Your task to perform on an android device: Open Android settings Image 0: 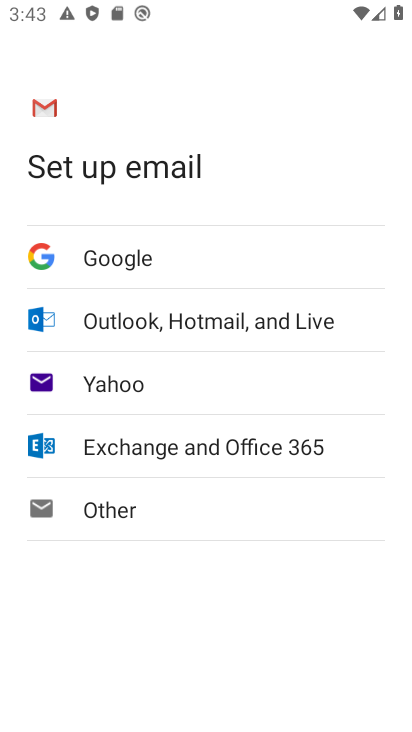
Step 0: press home button
Your task to perform on an android device: Open Android settings Image 1: 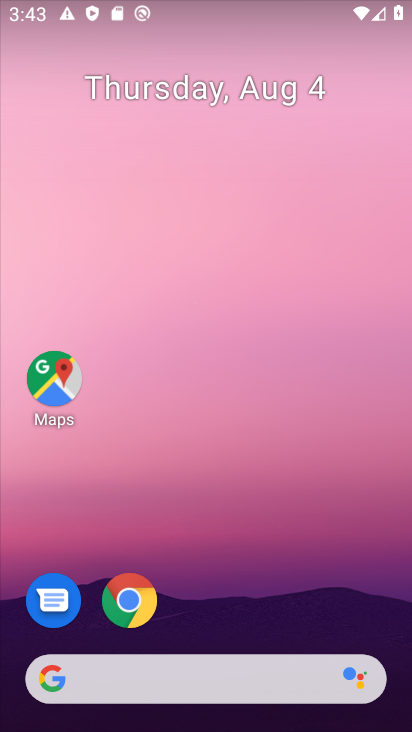
Step 1: drag from (284, 540) to (225, 66)
Your task to perform on an android device: Open Android settings Image 2: 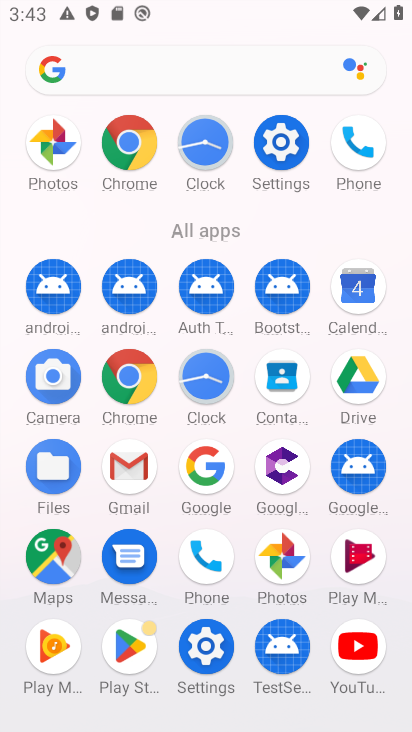
Step 2: click (266, 127)
Your task to perform on an android device: Open Android settings Image 3: 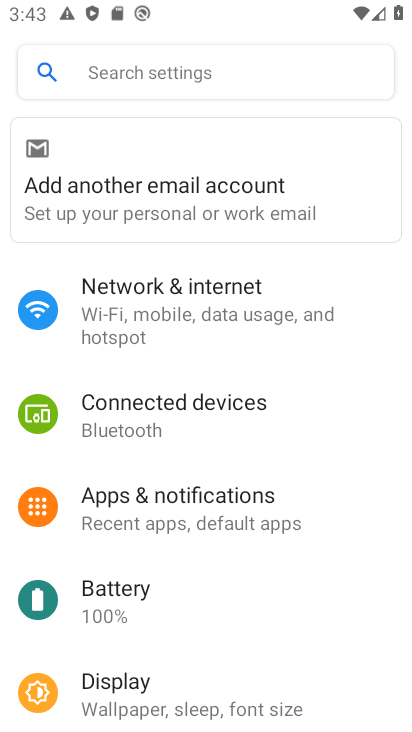
Step 3: task complete